Your task to perform on an android device: Is it going to rain this weekend? Image 0: 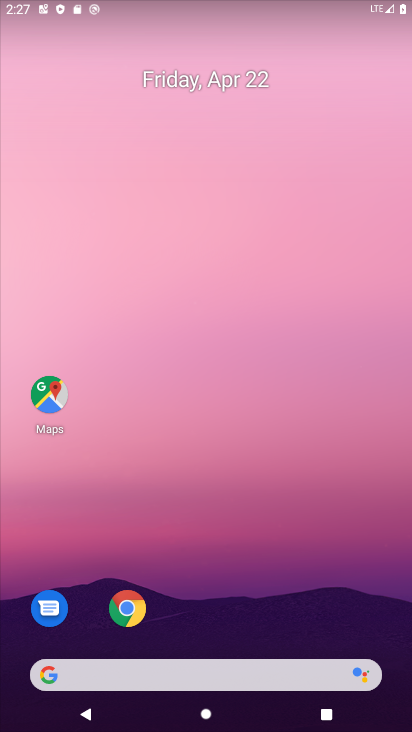
Step 0: drag from (280, 703) to (258, 262)
Your task to perform on an android device: Is it going to rain this weekend? Image 1: 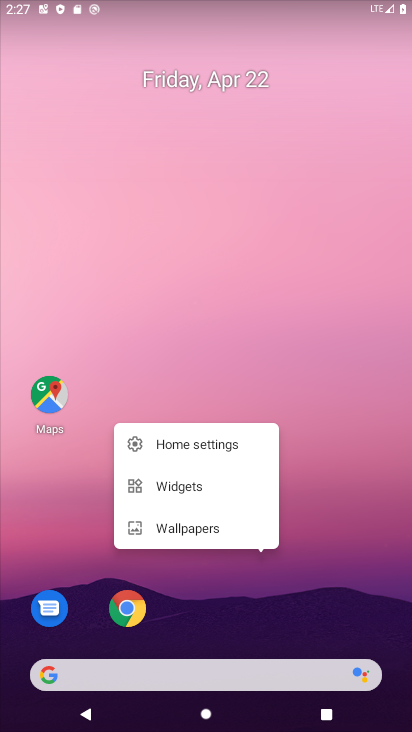
Step 1: click (354, 457)
Your task to perform on an android device: Is it going to rain this weekend? Image 2: 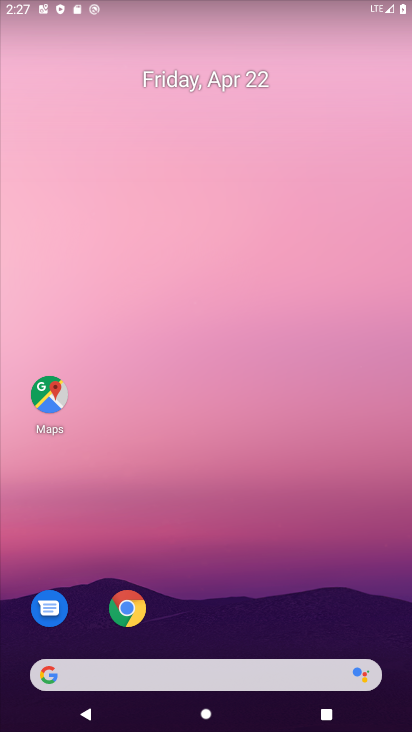
Step 2: drag from (263, 695) to (160, 133)
Your task to perform on an android device: Is it going to rain this weekend? Image 3: 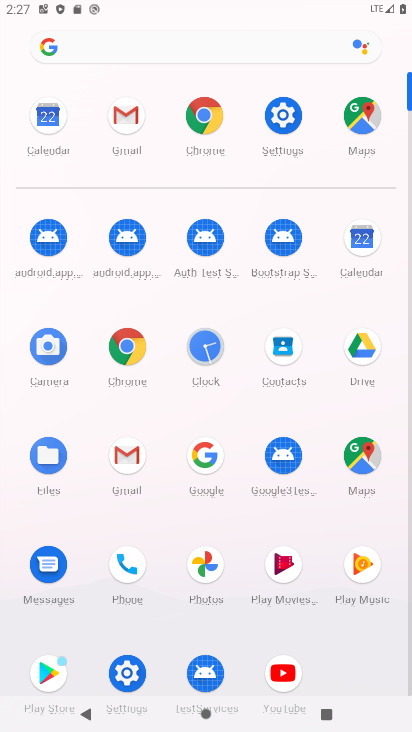
Step 3: click (125, 43)
Your task to perform on an android device: Is it going to rain this weekend? Image 4: 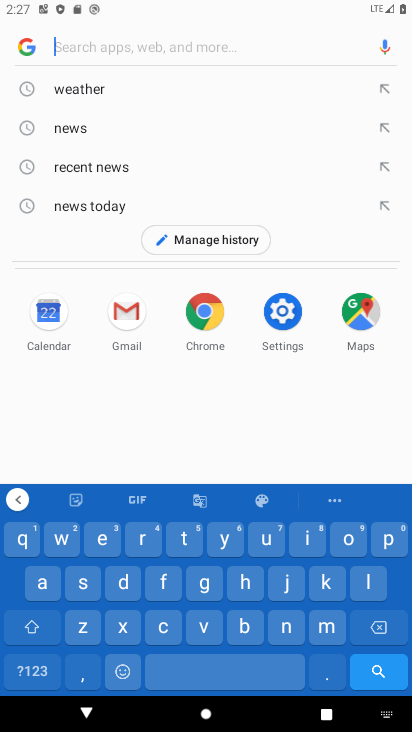
Step 4: click (125, 82)
Your task to perform on an android device: Is it going to rain this weekend? Image 5: 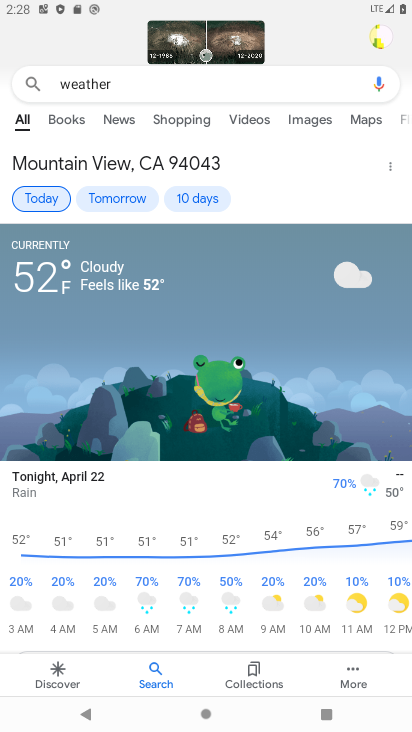
Step 5: click (194, 192)
Your task to perform on an android device: Is it going to rain this weekend? Image 6: 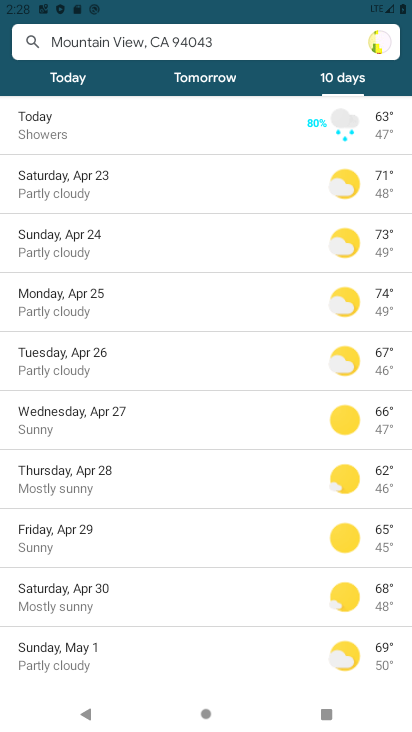
Step 6: task complete